Your task to perform on an android device: set the stopwatch Image 0: 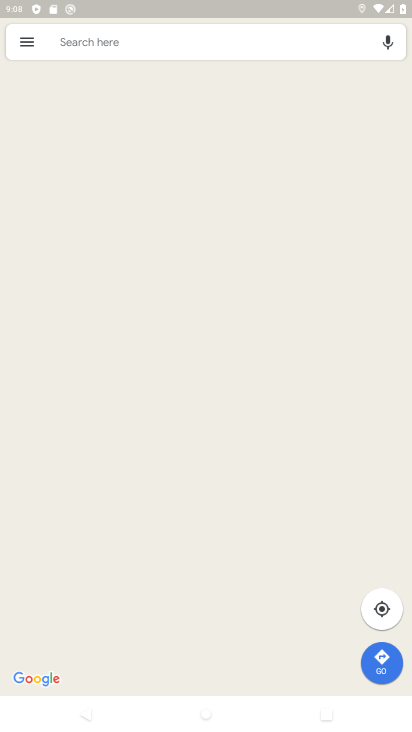
Step 0: press home button
Your task to perform on an android device: set the stopwatch Image 1: 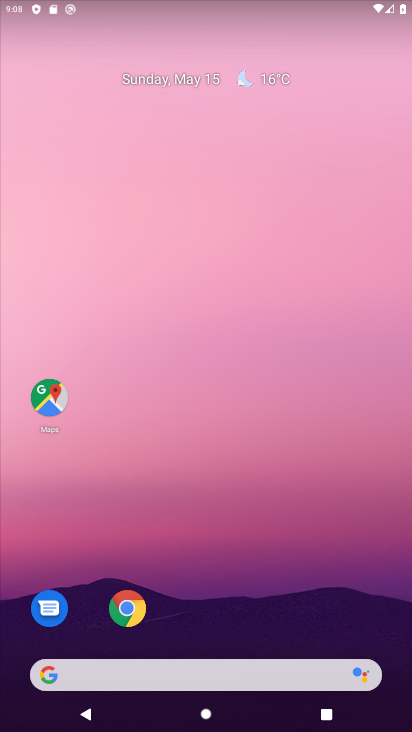
Step 1: drag from (205, 648) to (126, 3)
Your task to perform on an android device: set the stopwatch Image 2: 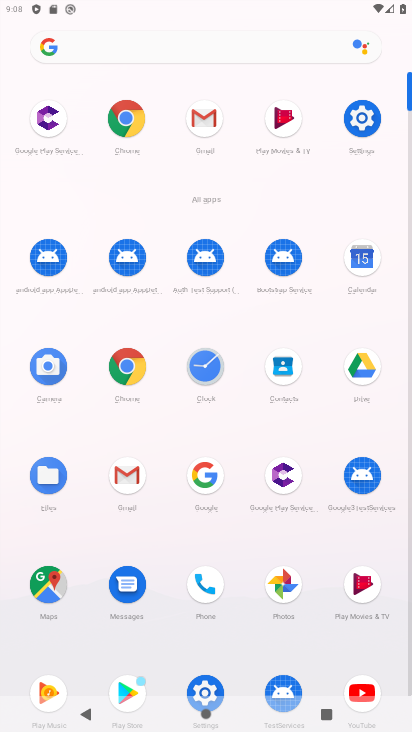
Step 2: click (199, 350)
Your task to perform on an android device: set the stopwatch Image 3: 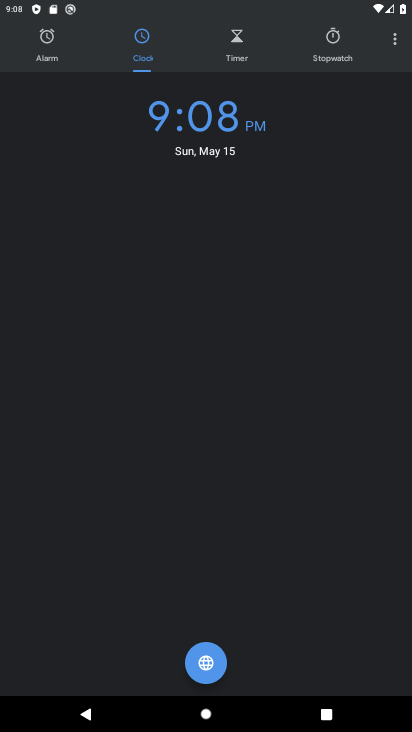
Step 3: click (339, 53)
Your task to perform on an android device: set the stopwatch Image 4: 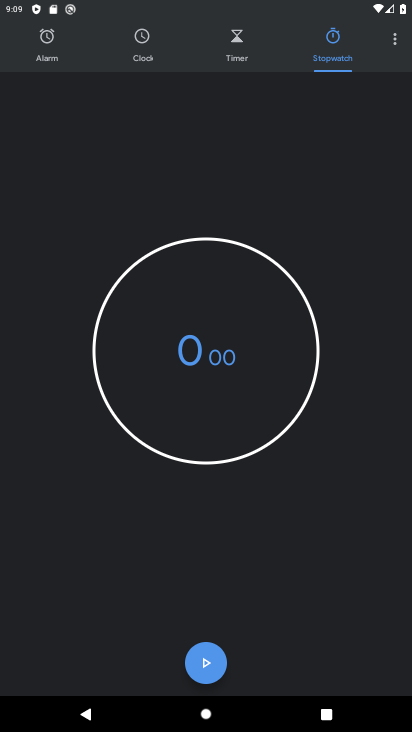
Step 4: task complete